Your task to perform on an android device: add a contact in the contacts app Image 0: 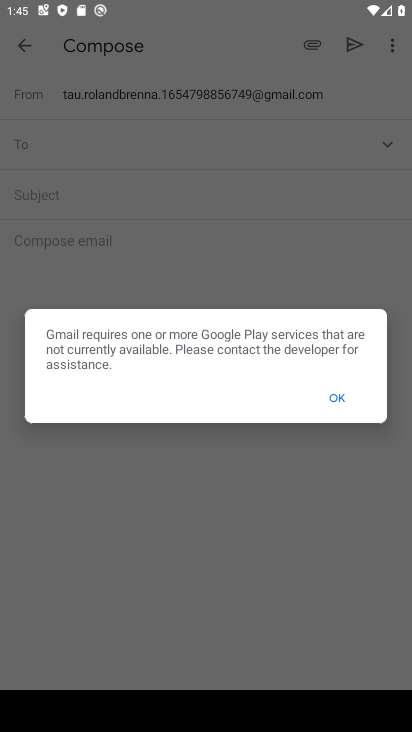
Step 0: click (347, 391)
Your task to perform on an android device: add a contact in the contacts app Image 1: 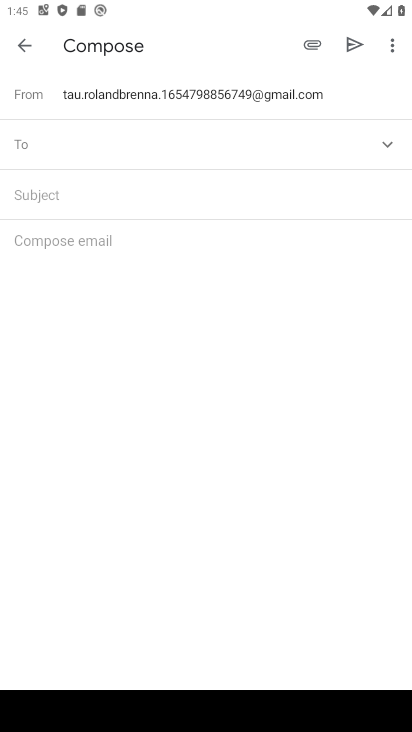
Step 1: press home button
Your task to perform on an android device: add a contact in the contacts app Image 2: 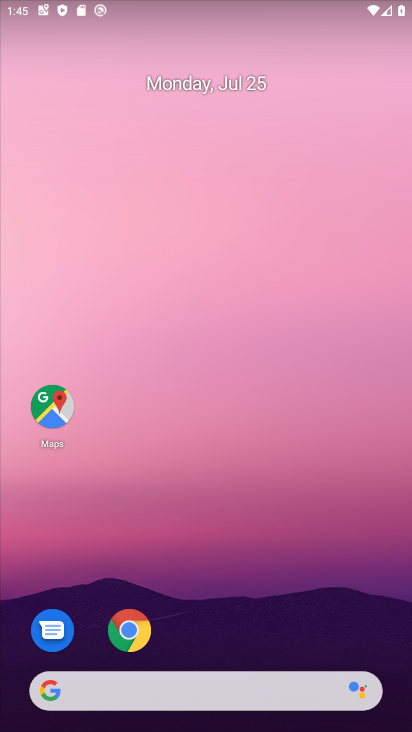
Step 2: drag from (277, 651) to (250, 78)
Your task to perform on an android device: add a contact in the contacts app Image 3: 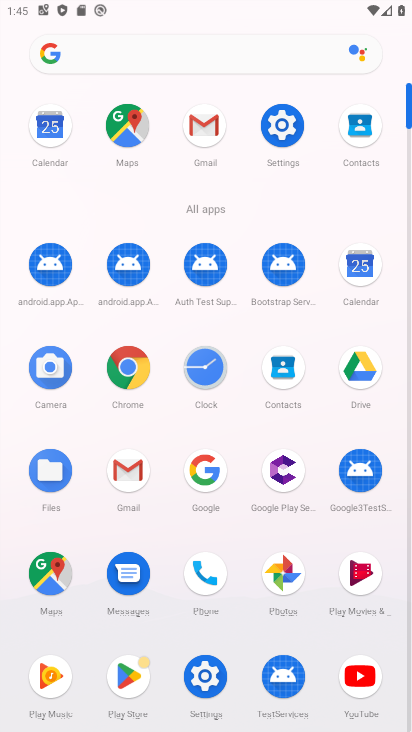
Step 3: click (343, 145)
Your task to perform on an android device: add a contact in the contacts app Image 4: 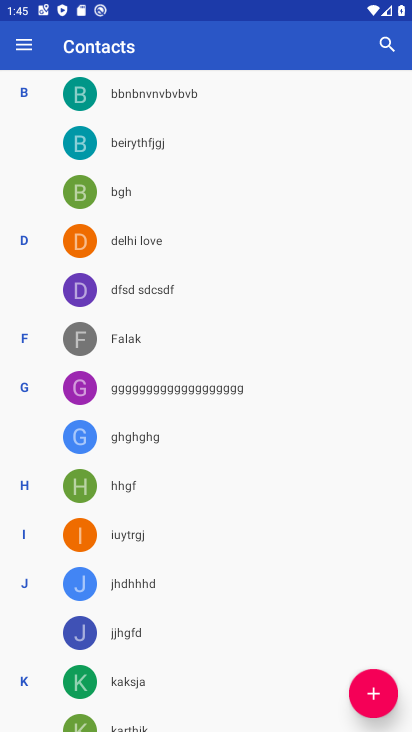
Step 4: click (379, 689)
Your task to perform on an android device: add a contact in the contacts app Image 5: 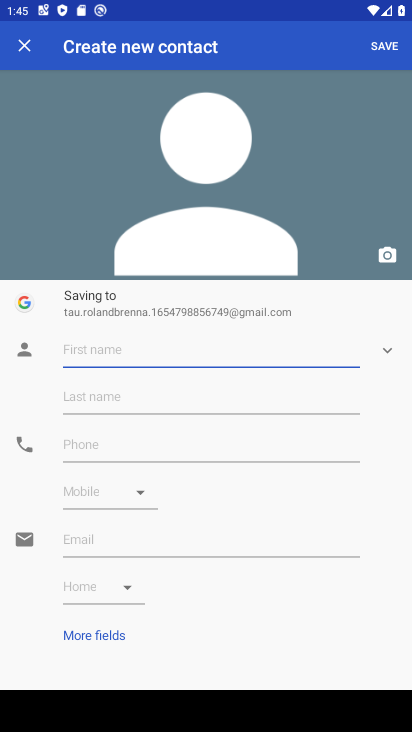
Step 5: type "fgjfj"
Your task to perform on an android device: add a contact in the contacts app Image 6: 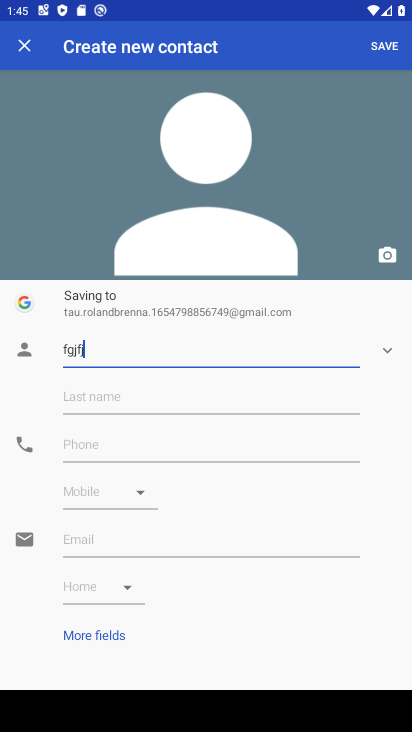
Step 6: click (249, 404)
Your task to perform on an android device: add a contact in the contacts app Image 7: 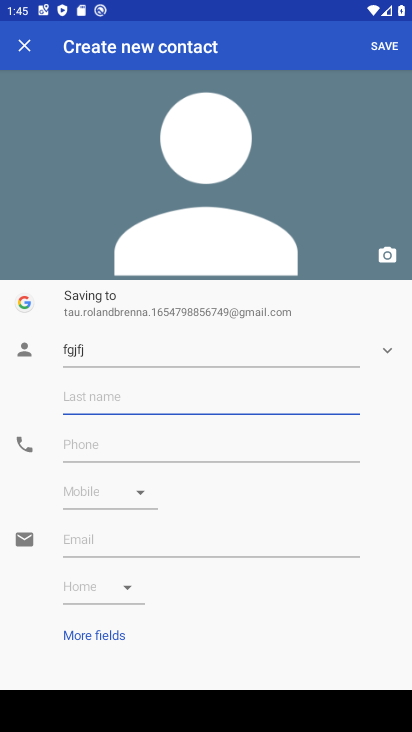
Step 7: type "jkk"
Your task to perform on an android device: add a contact in the contacts app Image 8: 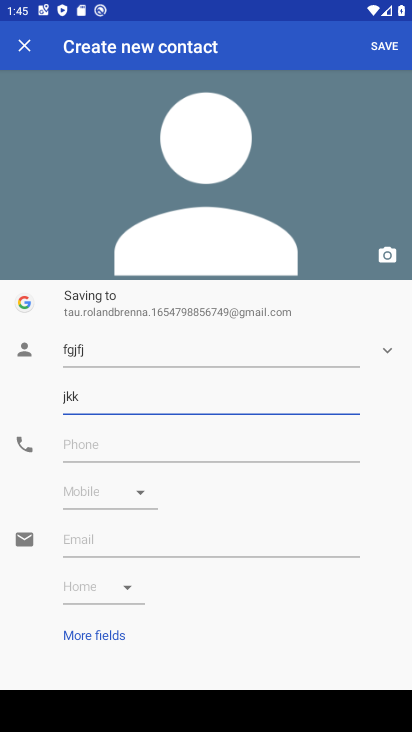
Step 8: click (281, 447)
Your task to perform on an android device: add a contact in the contacts app Image 9: 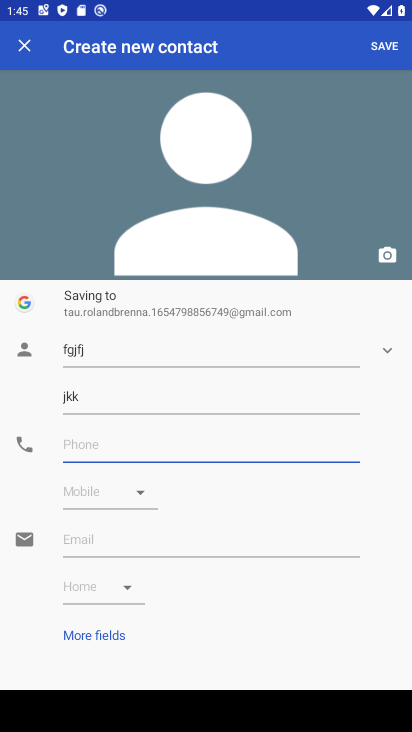
Step 9: type "54786756"
Your task to perform on an android device: add a contact in the contacts app Image 10: 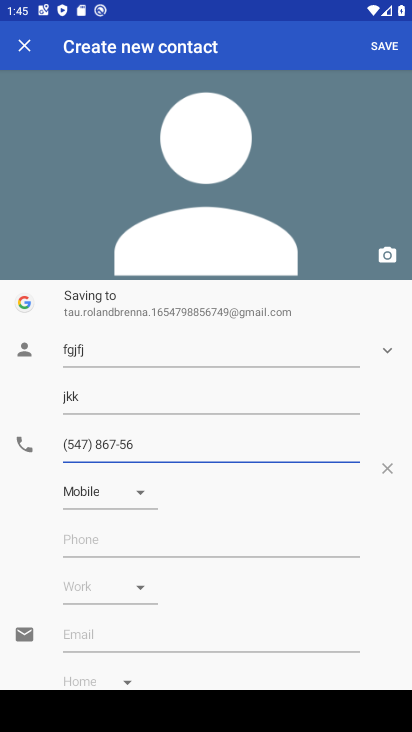
Step 10: click (369, 45)
Your task to perform on an android device: add a contact in the contacts app Image 11: 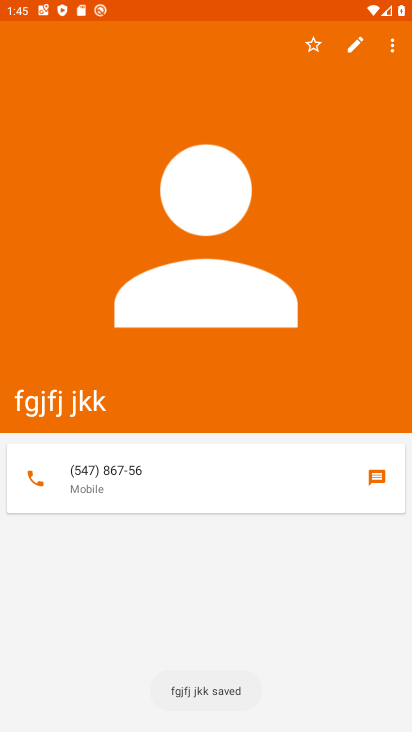
Step 11: task complete